Your task to perform on an android device: star an email in the gmail app Image 0: 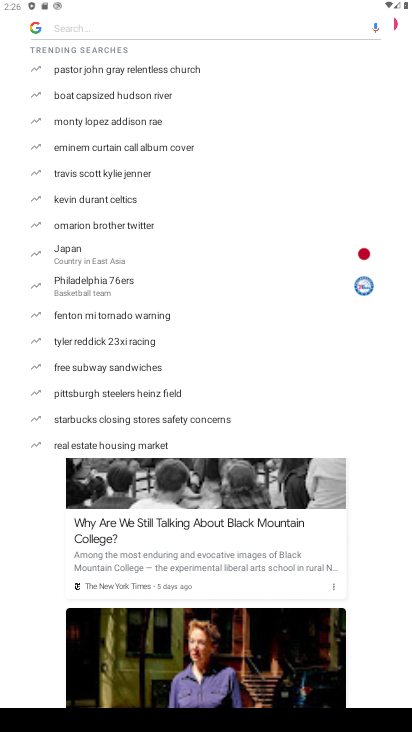
Step 0: press home button
Your task to perform on an android device: star an email in the gmail app Image 1: 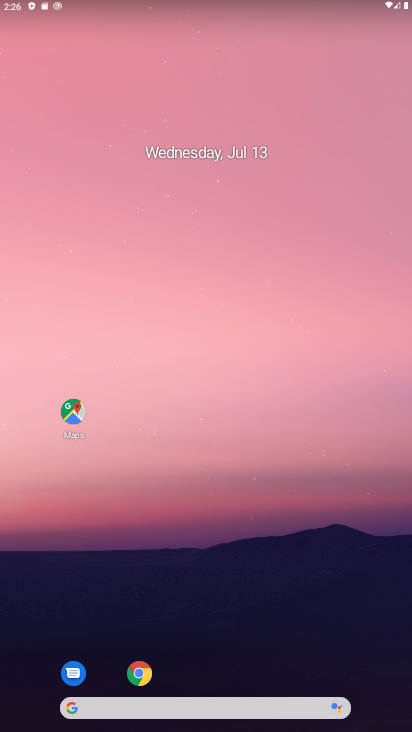
Step 1: drag from (197, 697) to (290, 277)
Your task to perform on an android device: star an email in the gmail app Image 2: 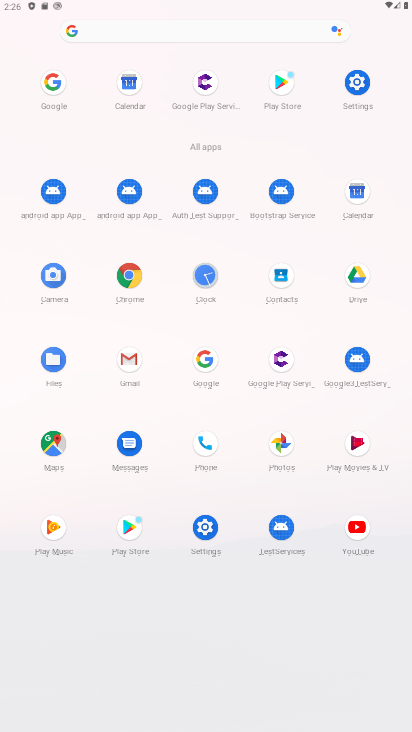
Step 2: click (128, 359)
Your task to perform on an android device: star an email in the gmail app Image 3: 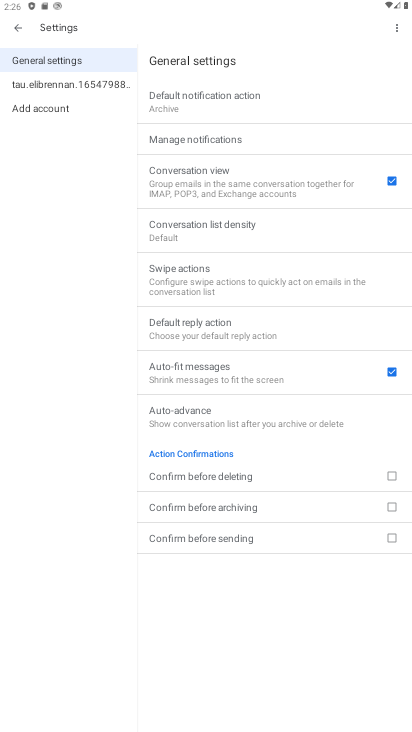
Step 3: press back button
Your task to perform on an android device: star an email in the gmail app Image 4: 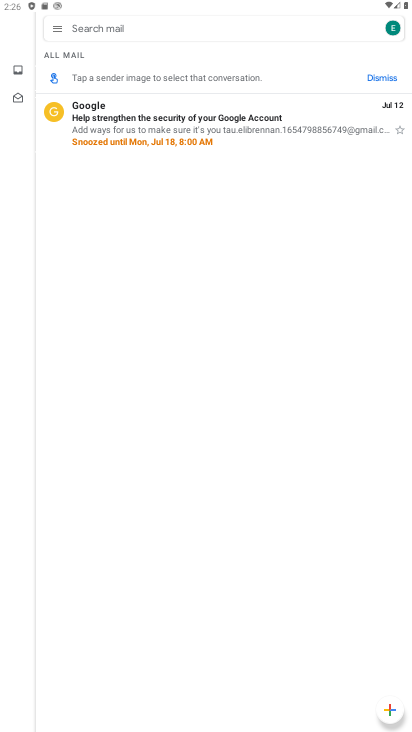
Step 4: click (402, 128)
Your task to perform on an android device: star an email in the gmail app Image 5: 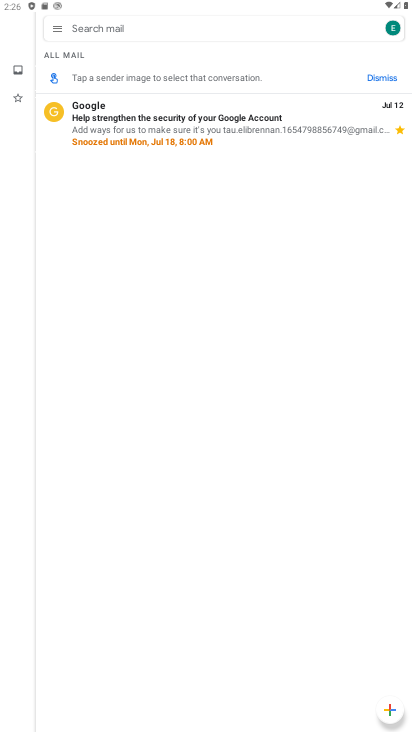
Step 5: task complete